Your task to perform on an android device: Open the stopwatch Image 0: 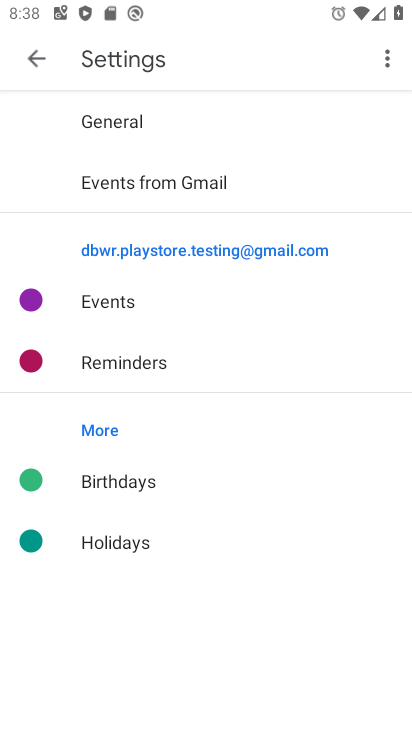
Step 0: press back button
Your task to perform on an android device: Open the stopwatch Image 1: 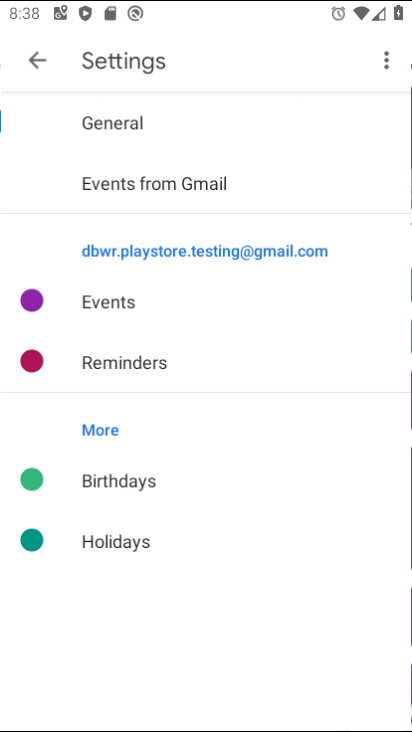
Step 1: press home button
Your task to perform on an android device: Open the stopwatch Image 2: 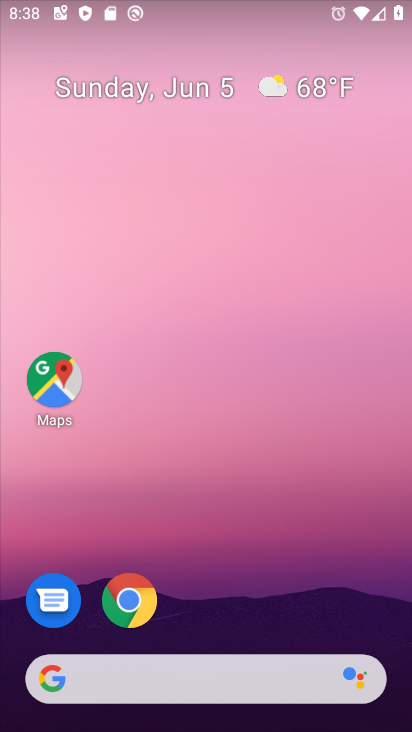
Step 2: drag from (369, 574) to (361, 539)
Your task to perform on an android device: Open the stopwatch Image 3: 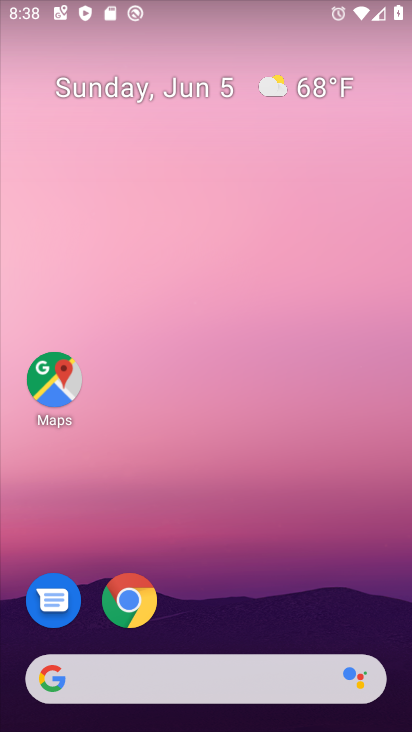
Step 3: drag from (276, 260) to (213, 49)
Your task to perform on an android device: Open the stopwatch Image 4: 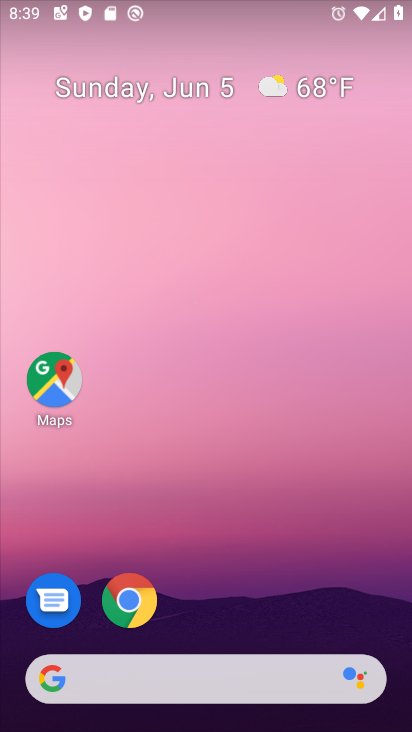
Step 4: drag from (388, 616) to (357, 289)
Your task to perform on an android device: Open the stopwatch Image 5: 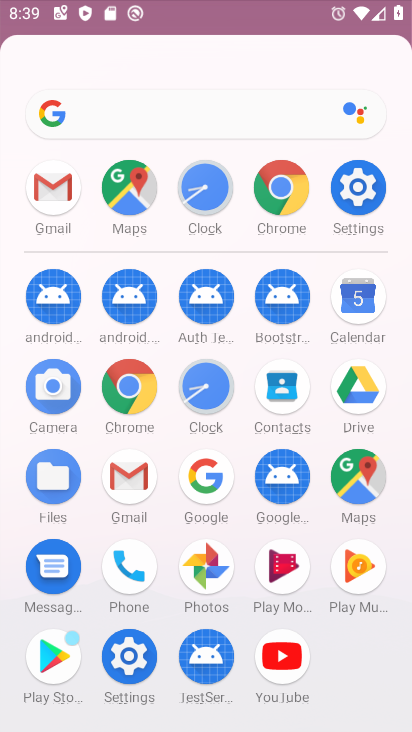
Step 5: click (298, 68)
Your task to perform on an android device: Open the stopwatch Image 6: 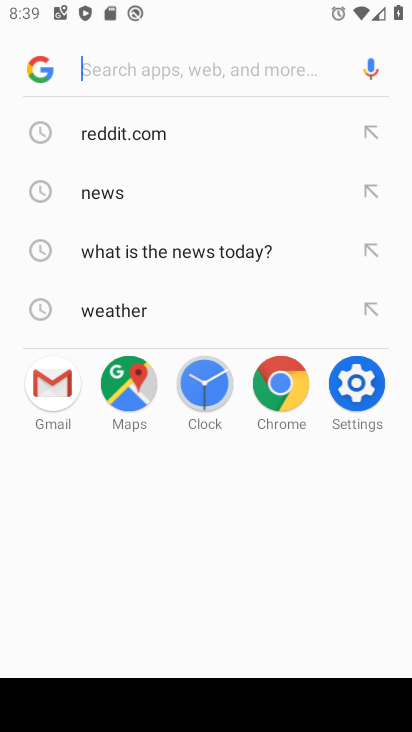
Step 6: click (196, 390)
Your task to perform on an android device: Open the stopwatch Image 7: 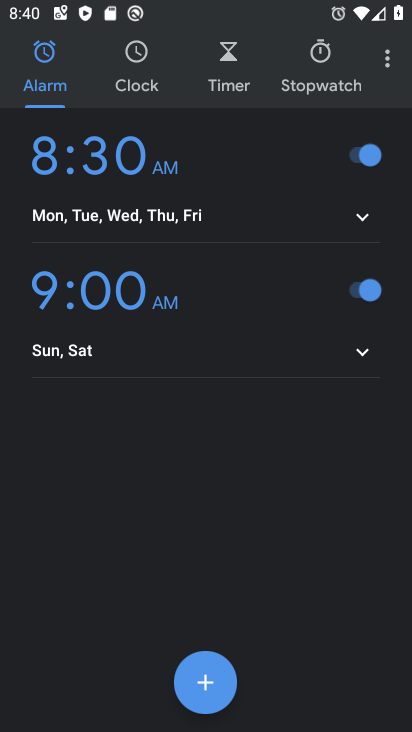
Step 7: click (325, 62)
Your task to perform on an android device: Open the stopwatch Image 8: 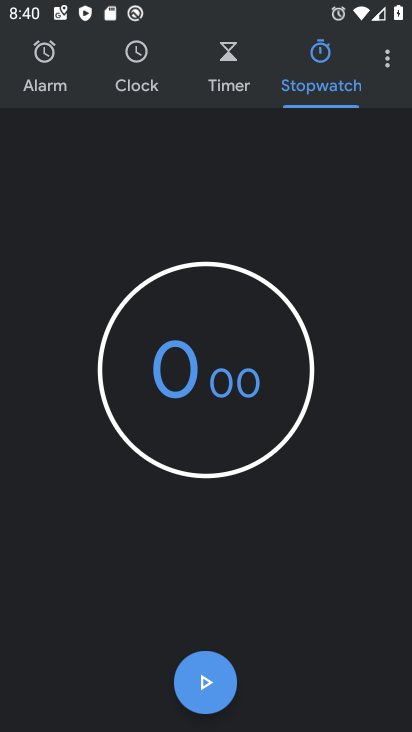
Step 8: task complete